Your task to perform on an android device: Open display settings Image 0: 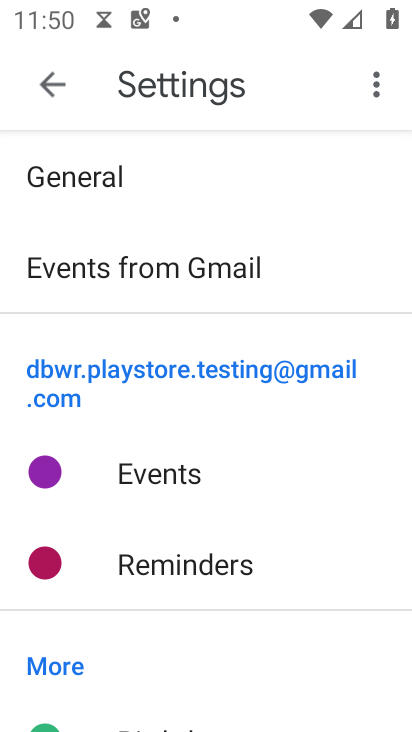
Step 0: press home button
Your task to perform on an android device: Open display settings Image 1: 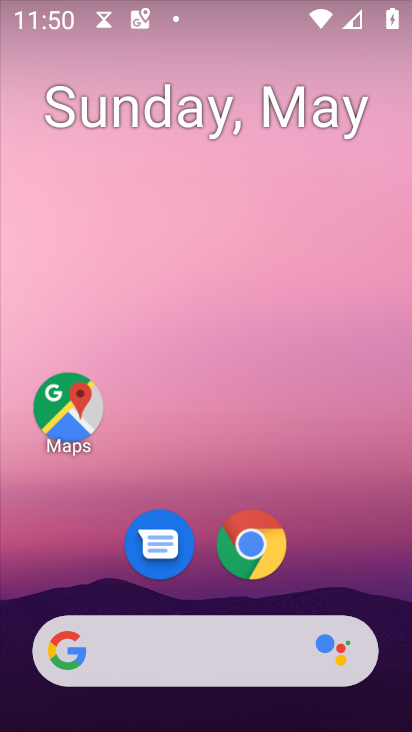
Step 1: drag from (268, 538) to (243, 216)
Your task to perform on an android device: Open display settings Image 2: 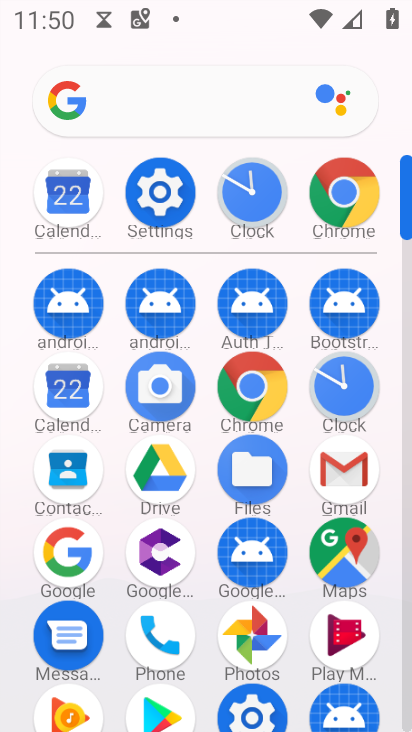
Step 2: click (174, 195)
Your task to perform on an android device: Open display settings Image 3: 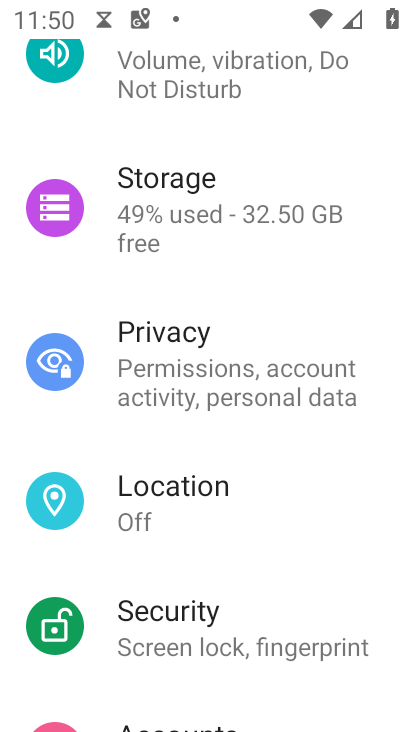
Step 3: drag from (196, 151) to (197, 570)
Your task to perform on an android device: Open display settings Image 4: 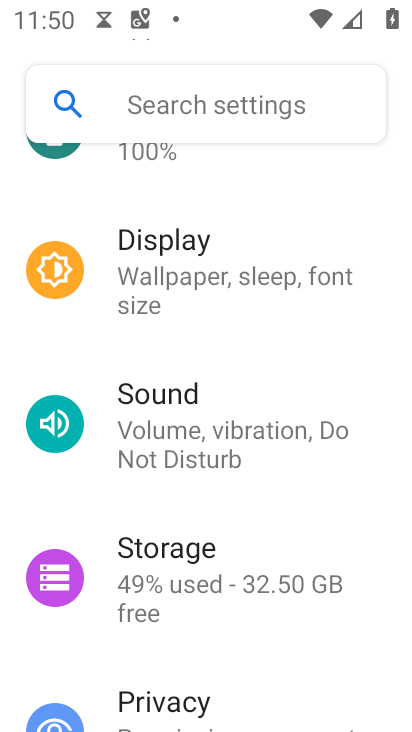
Step 4: click (176, 248)
Your task to perform on an android device: Open display settings Image 5: 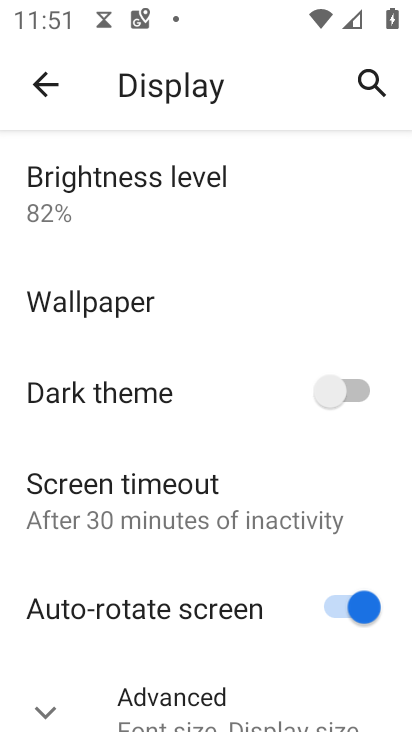
Step 5: task complete